Your task to perform on an android device: change the clock display to digital Image 0: 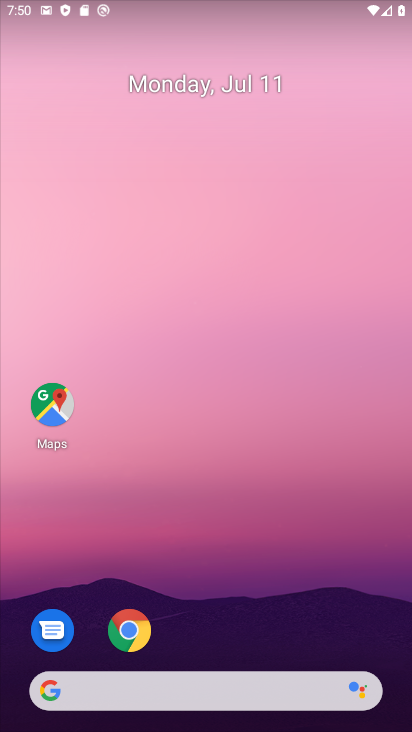
Step 0: drag from (198, 705) to (256, 214)
Your task to perform on an android device: change the clock display to digital Image 1: 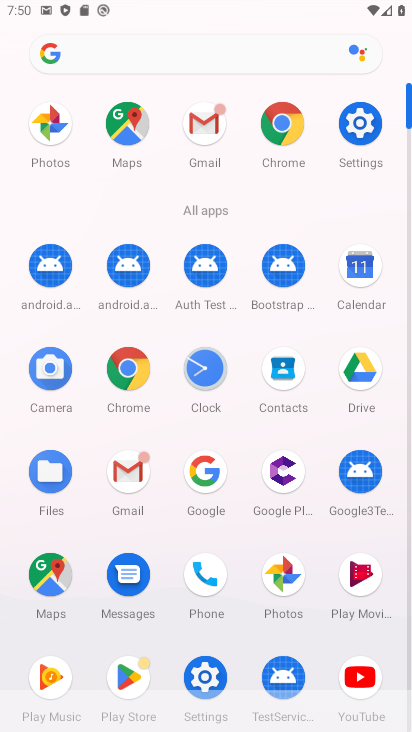
Step 1: click (217, 370)
Your task to perform on an android device: change the clock display to digital Image 2: 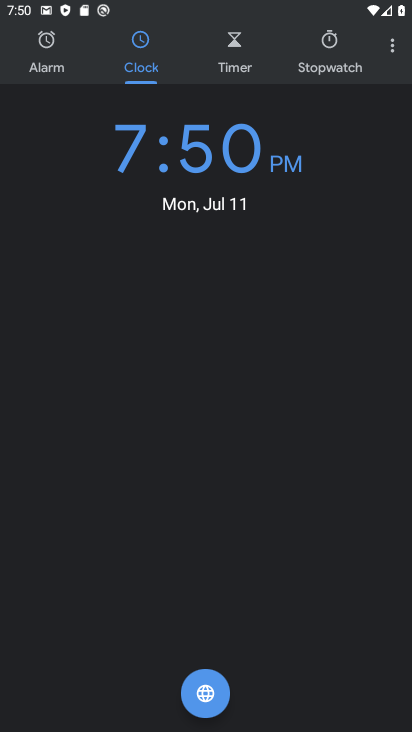
Step 2: click (397, 50)
Your task to perform on an android device: change the clock display to digital Image 3: 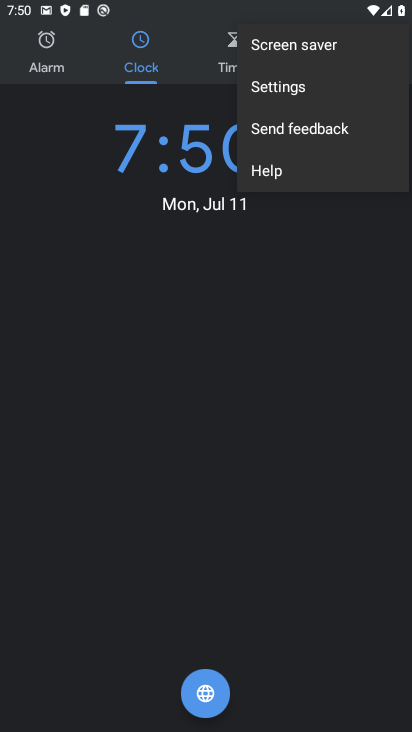
Step 3: click (344, 98)
Your task to perform on an android device: change the clock display to digital Image 4: 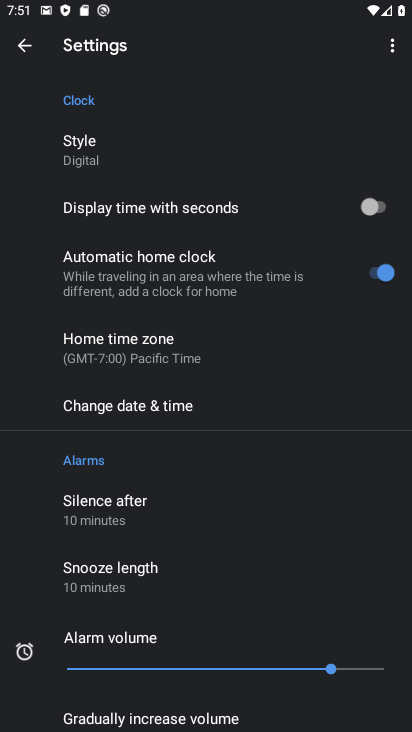
Step 4: task complete